Your task to perform on an android device: Open the files app Image 0: 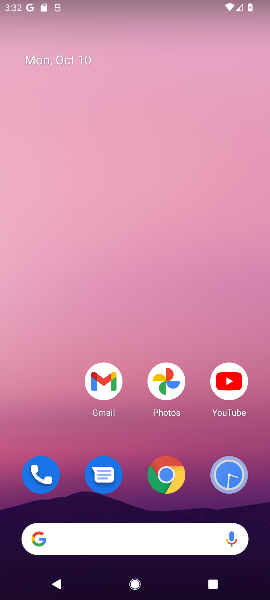
Step 0: drag from (124, 525) to (267, 65)
Your task to perform on an android device: Open the files app Image 1: 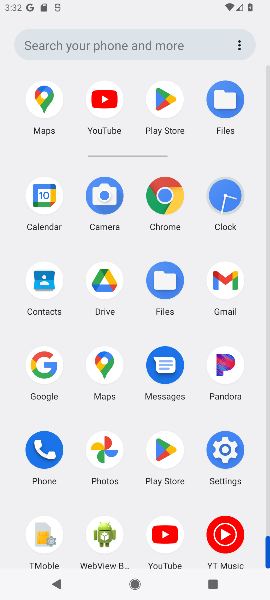
Step 1: click (165, 292)
Your task to perform on an android device: Open the files app Image 2: 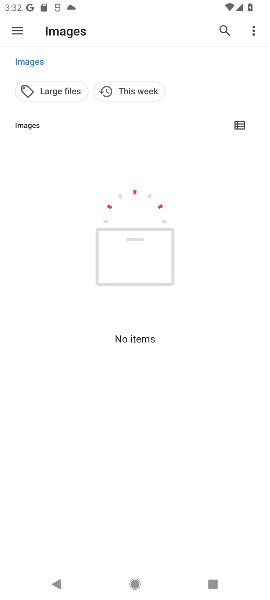
Step 2: task complete